Your task to perform on an android device: Open settings on Google Maps Image 0: 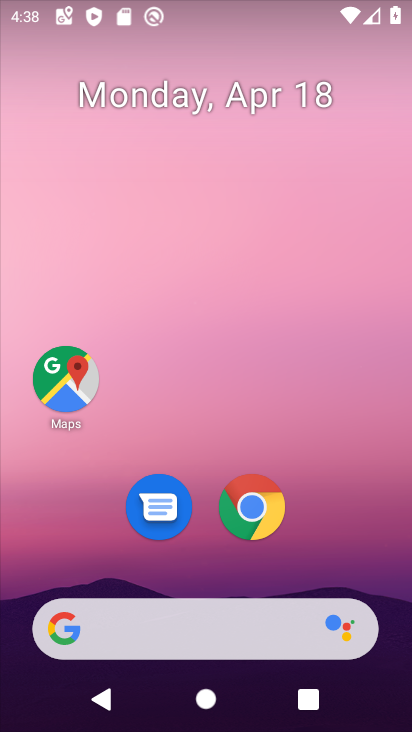
Step 0: drag from (309, 481) to (321, 8)
Your task to perform on an android device: Open settings on Google Maps Image 1: 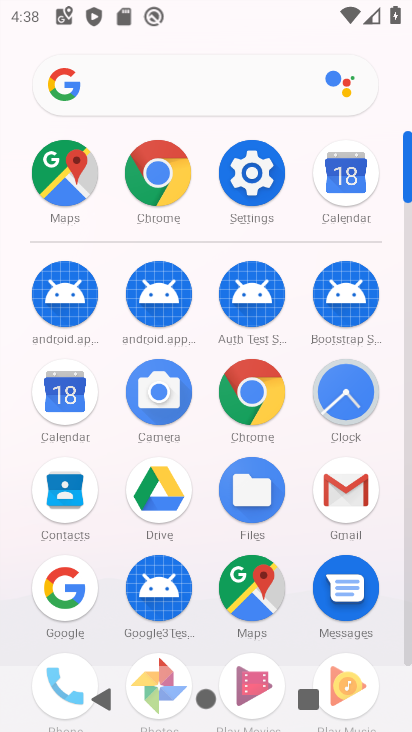
Step 1: drag from (297, 558) to (303, 194)
Your task to perform on an android device: Open settings on Google Maps Image 2: 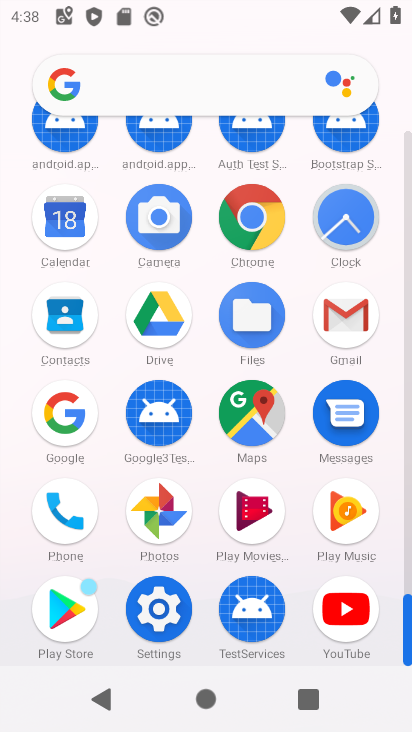
Step 2: click (266, 429)
Your task to perform on an android device: Open settings on Google Maps Image 3: 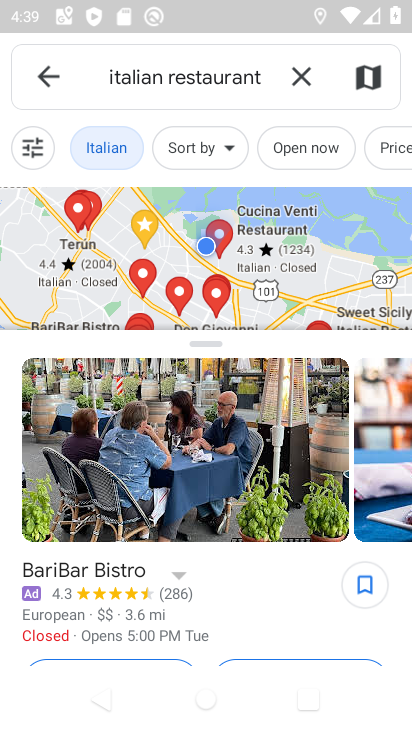
Step 3: press back button
Your task to perform on an android device: Open settings on Google Maps Image 4: 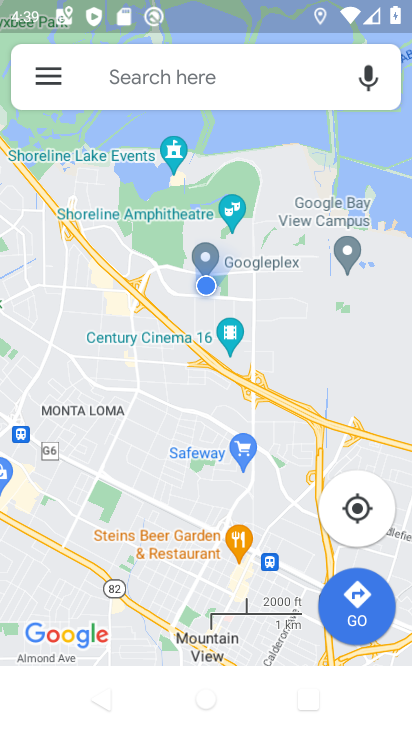
Step 4: click (41, 78)
Your task to perform on an android device: Open settings on Google Maps Image 5: 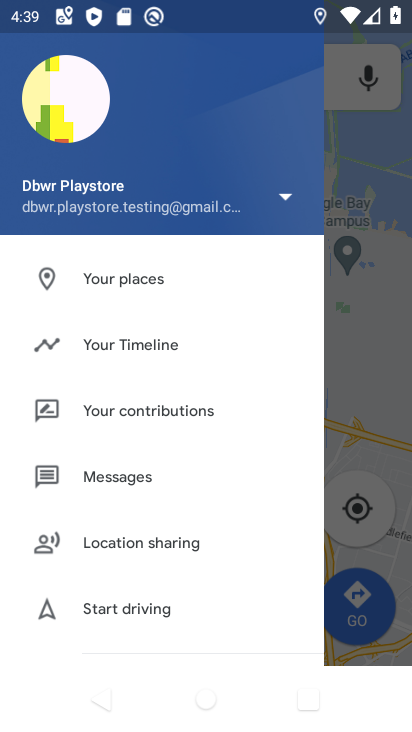
Step 5: drag from (210, 608) to (190, 204)
Your task to perform on an android device: Open settings on Google Maps Image 6: 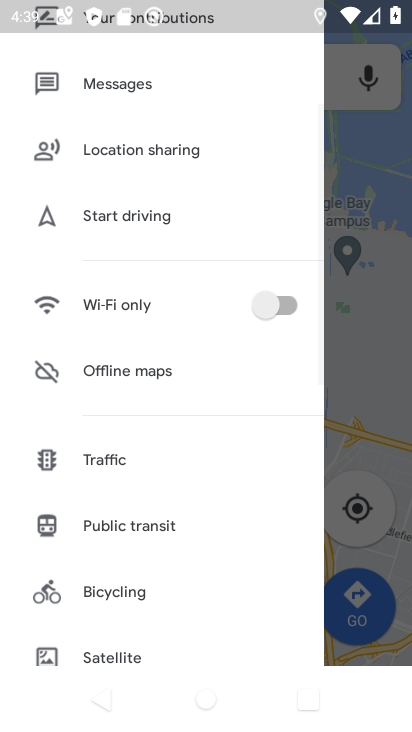
Step 6: drag from (150, 621) to (157, 206)
Your task to perform on an android device: Open settings on Google Maps Image 7: 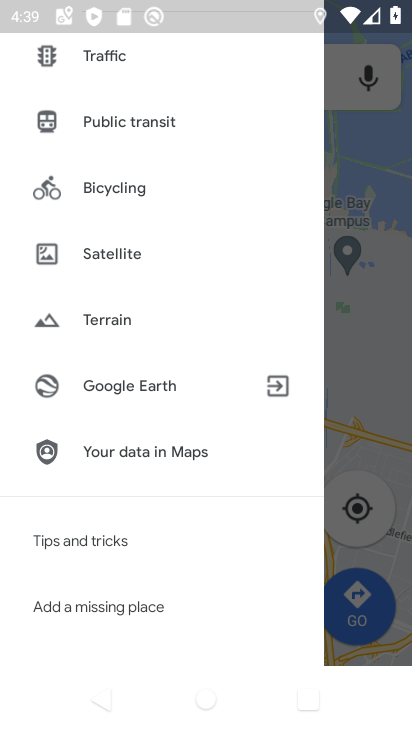
Step 7: drag from (170, 497) to (165, 198)
Your task to perform on an android device: Open settings on Google Maps Image 8: 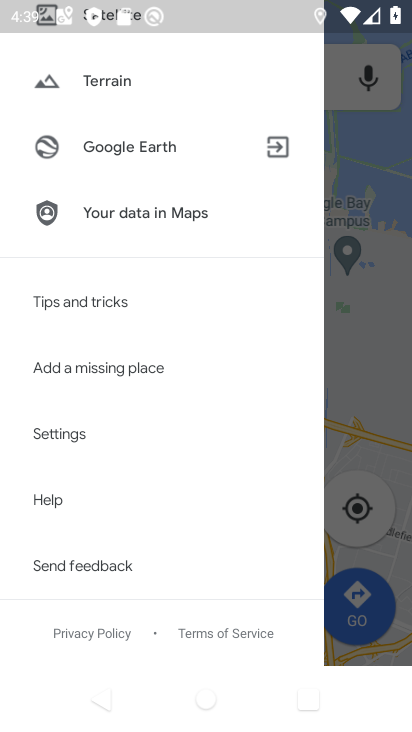
Step 8: click (76, 429)
Your task to perform on an android device: Open settings on Google Maps Image 9: 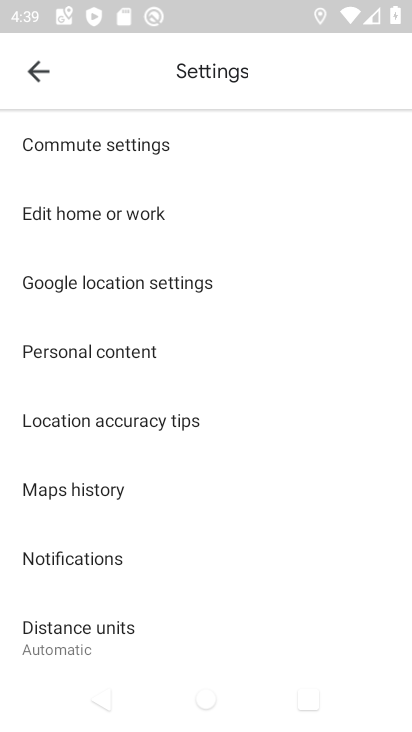
Step 9: task complete